Your task to perform on an android device: uninstall "VLC for Android" Image 0: 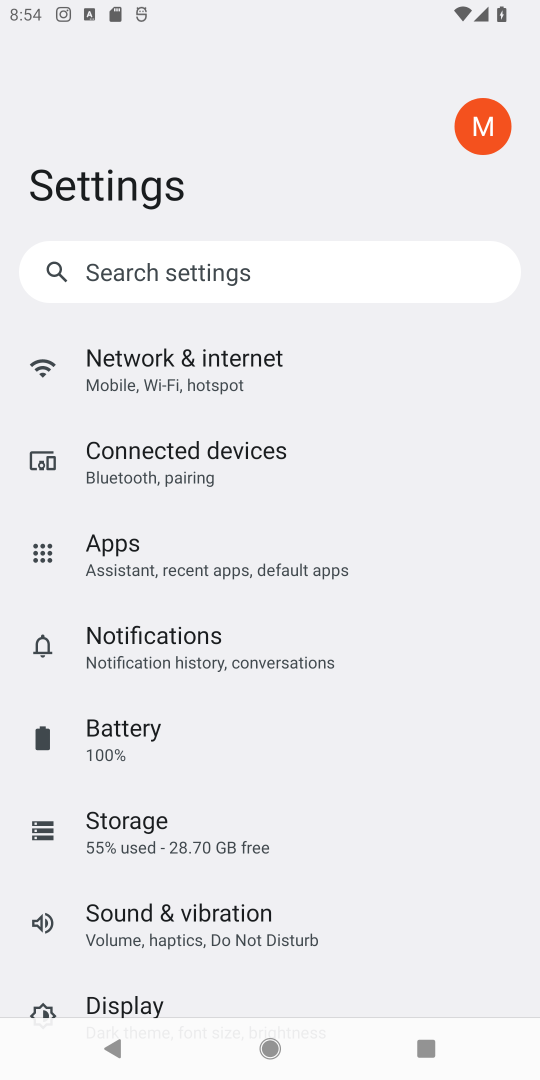
Step 0: press home button
Your task to perform on an android device: uninstall "VLC for Android" Image 1: 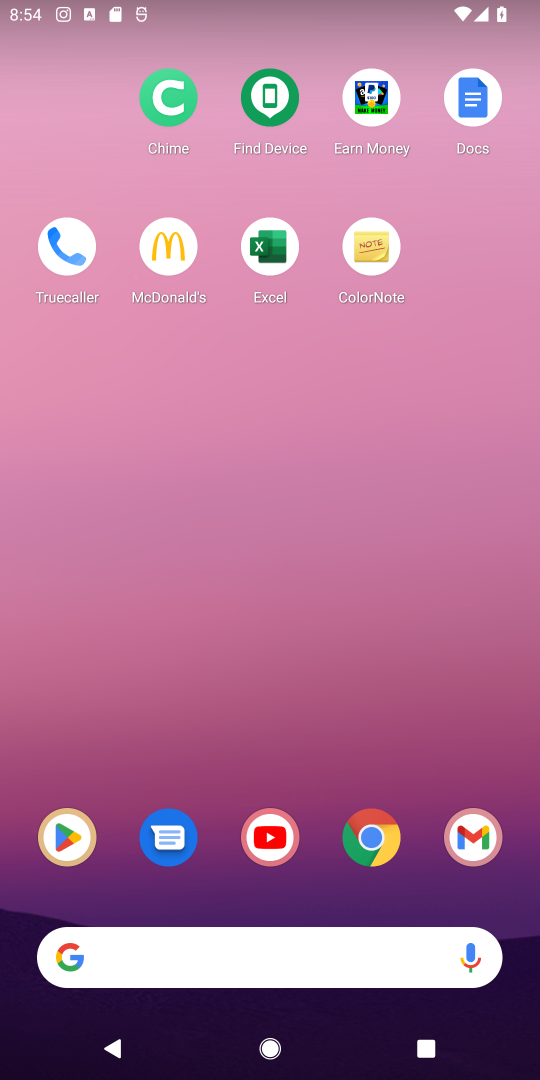
Step 1: click (69, 846)
Your task to perform on an android device: uninstall "VLC for Android" Image 2: 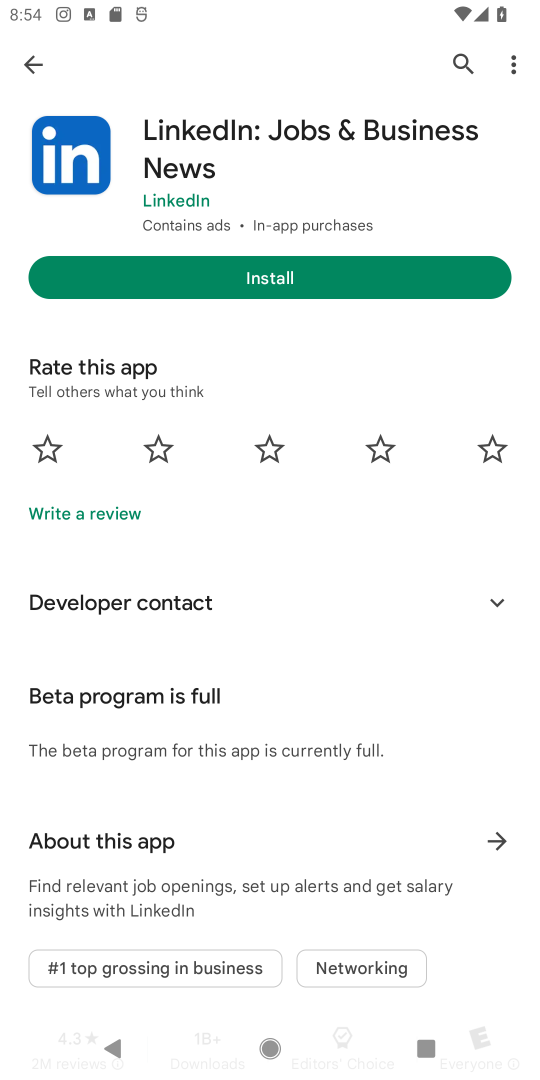
Step 2: click (466, 56)
Your task to perform on an android device: uninstall "VLC for Android" Image 3: 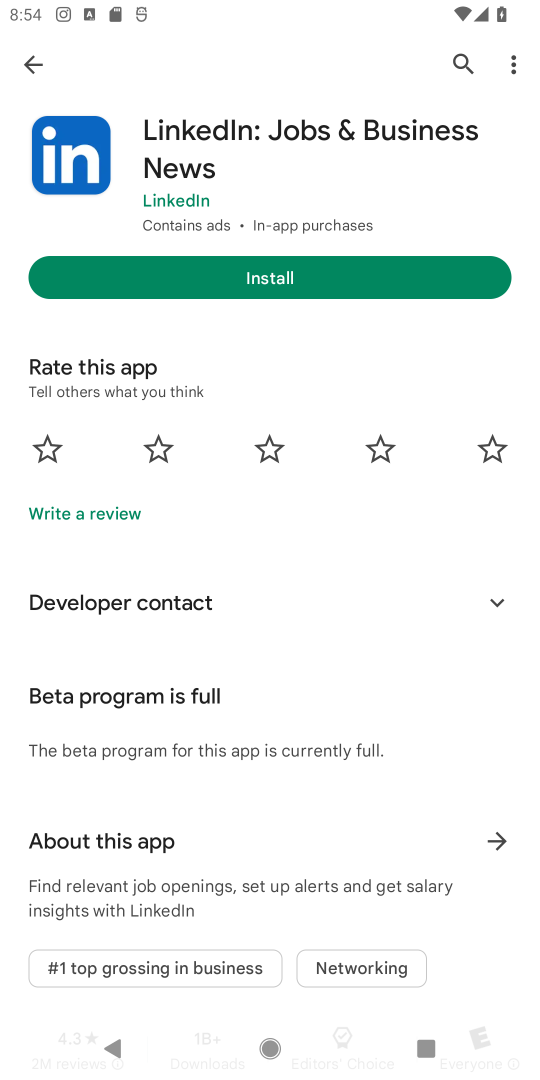
Step 3: click (466, 63)
Your task to perform on an android device: uninstall "VLC for Android" Image 4: 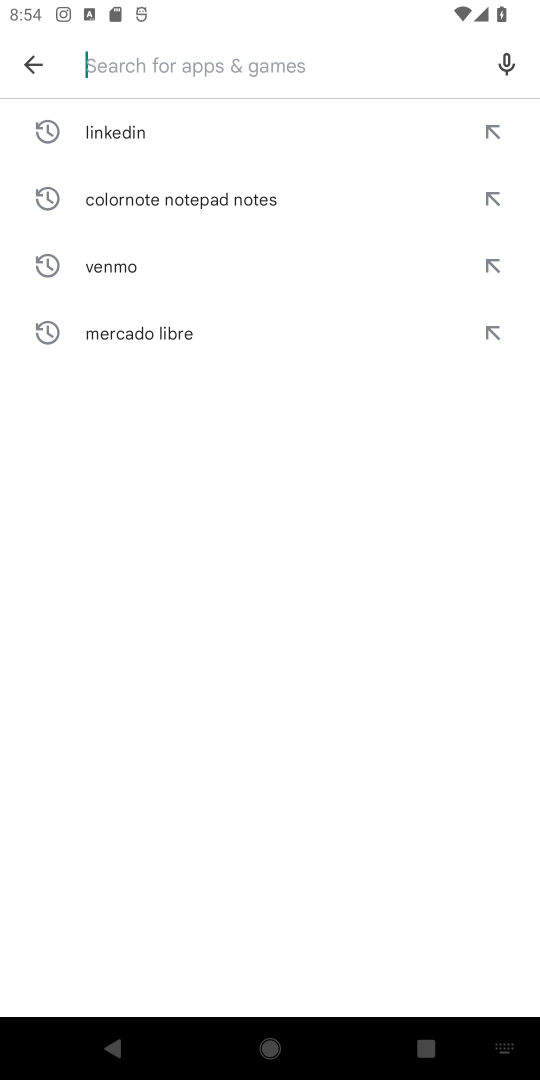
Step 4: type "VLC for Android"
Your task to perform on an android device: uninstall "VLC for Android" Image 5: 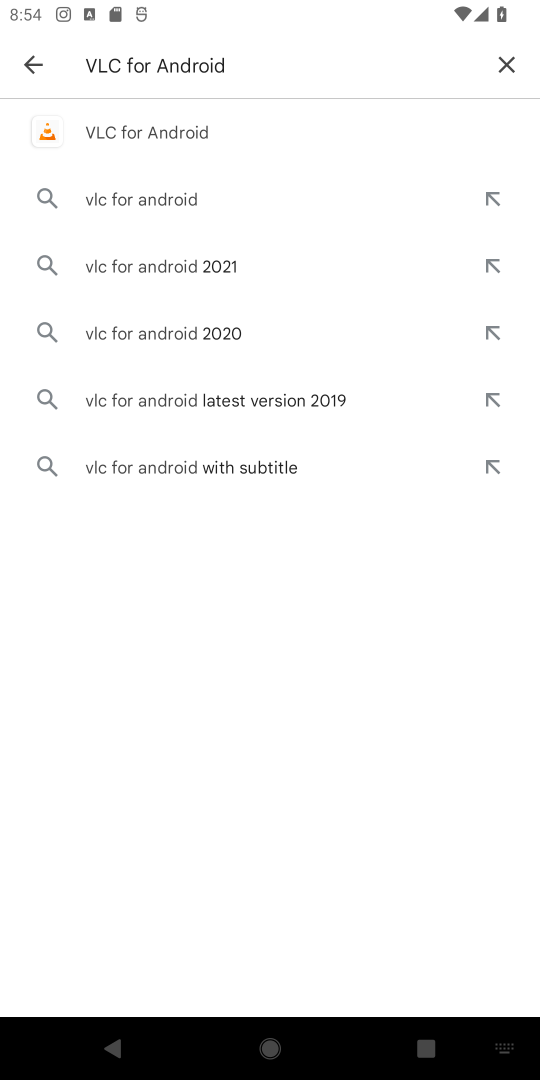
Step 5: click (121, 141)
Your task to perform on an android device: uninstall "VLC for Android" Image 6: 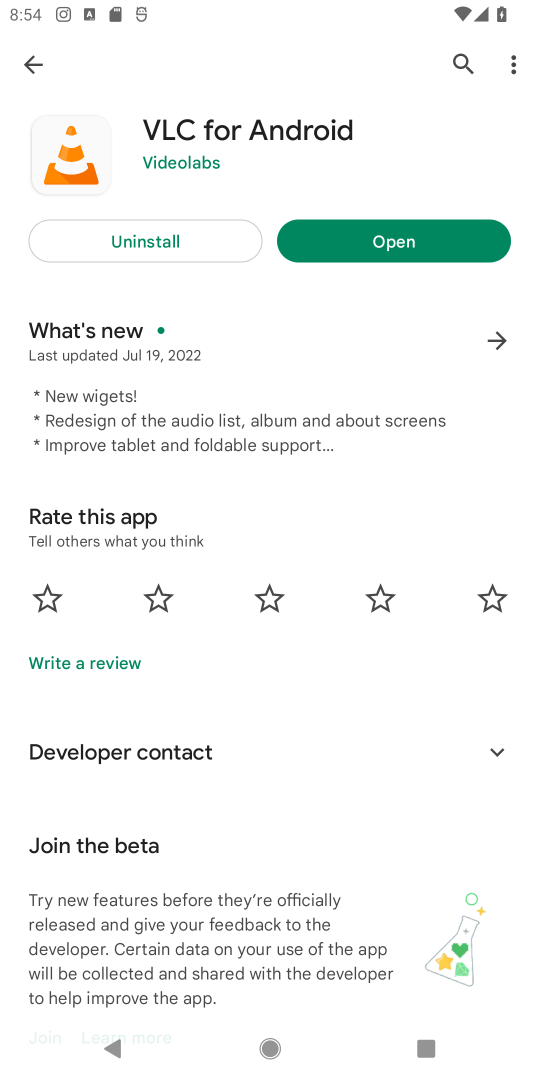
Step 6: click (140, 243)
Your task to perform on an android device: uninstall "VLC for Android" Image 7: 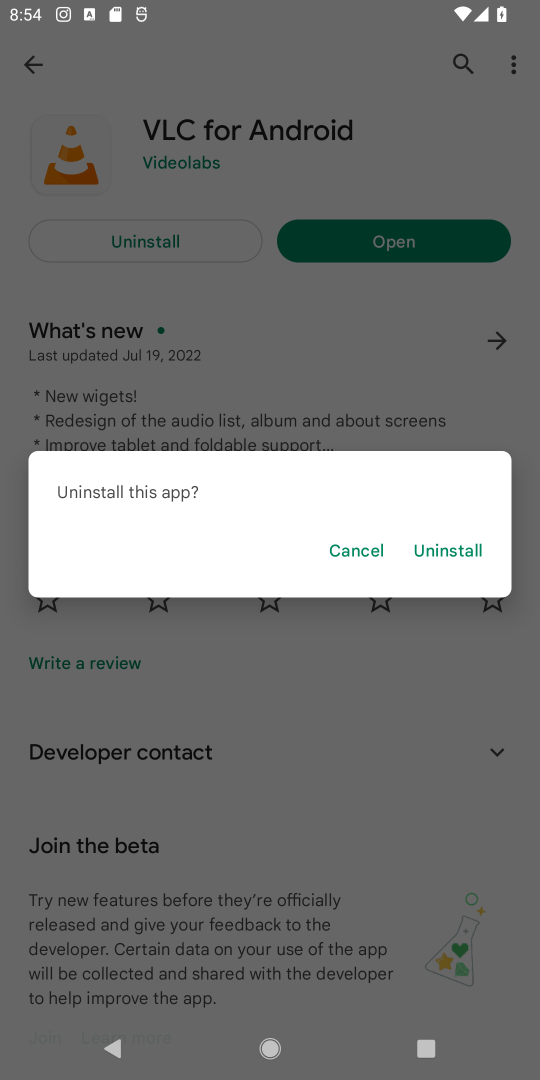
Step 7: click (449, 554)
Your task to perform on an android device: uninstall "VLC for Android" Image 8: 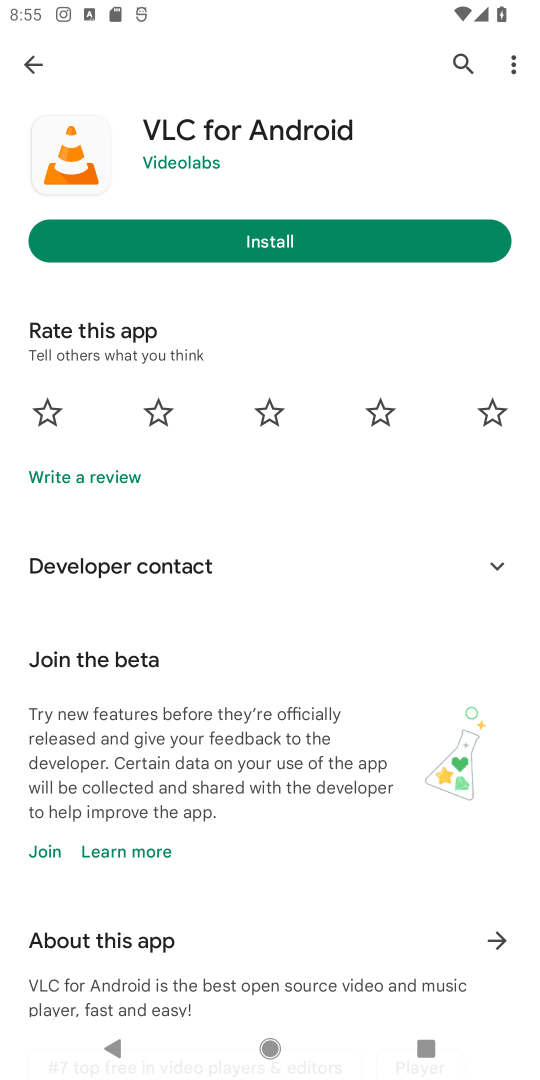
Step 8: task complete